Your task to perform on an android device: toggle notifications settings in the gmail app Image 0: 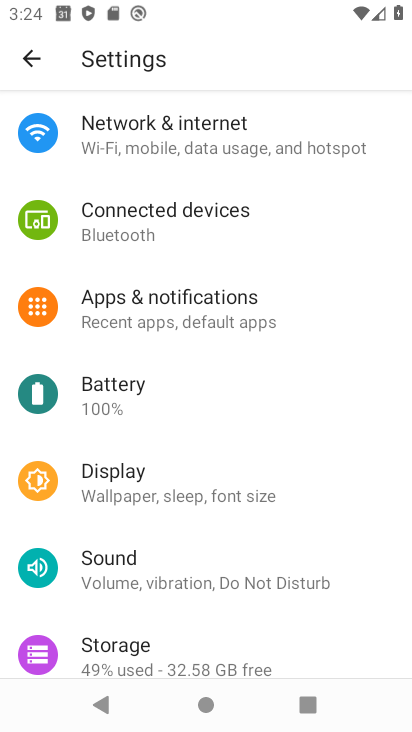
Step 0: press home button
Your task to perform on an android device: toggle notifications settings in the gmail app Image 1: 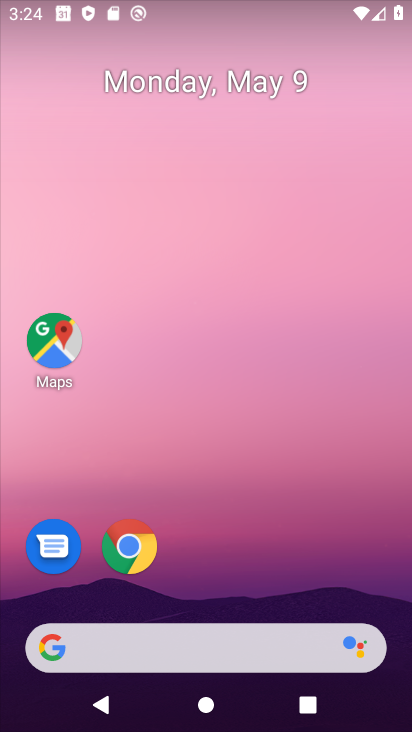
Step 1: drag from (308, 551) to (253, 77)
Your task to perform on an android device: toggle notifications settings in the gmail app Image 2: 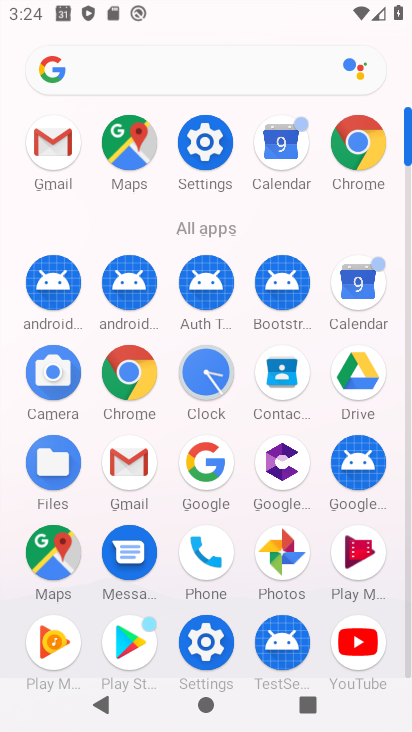
Step 2: click (54, 160)
Your task to perform on an android device: toggle notifications settings in the gmail app Image 3: 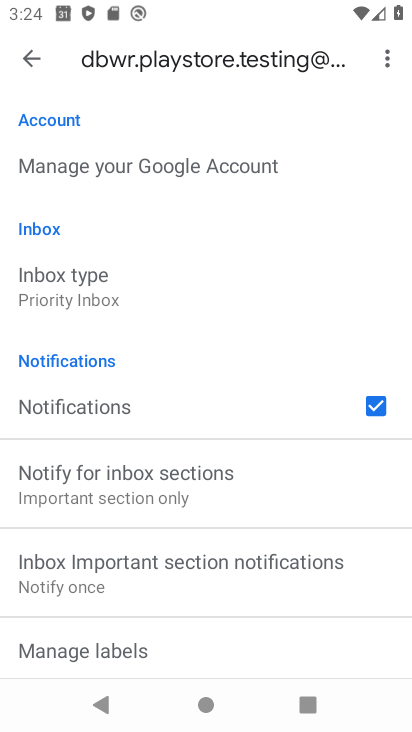
Step 3: click (94, 412)
Your task to perform on an android device: toggle notifications settings in the gmail app Image 4: 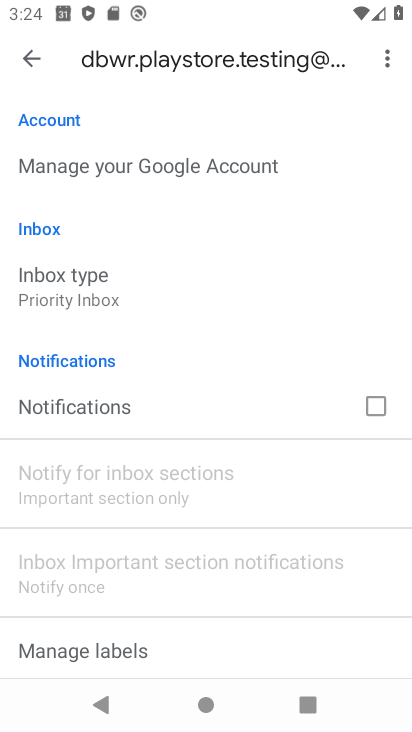
Step 4: task complete